Your task to perform on an android device: Search for sushi restaurants on Maps Image 0: 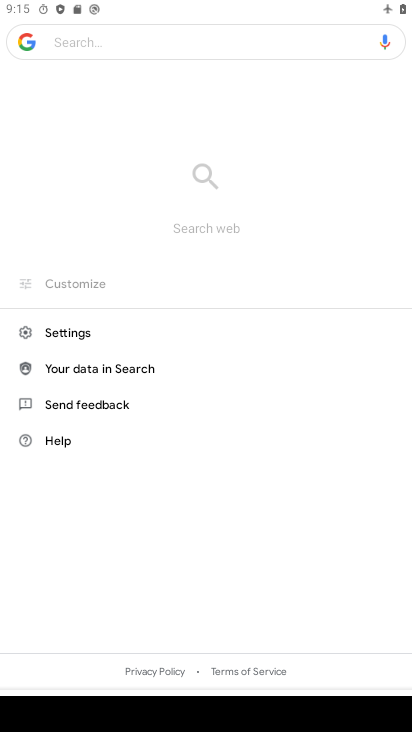
Step 0: press home button
Your task to perform on an android device: Search for sushi restaurants on Maps Image 1: 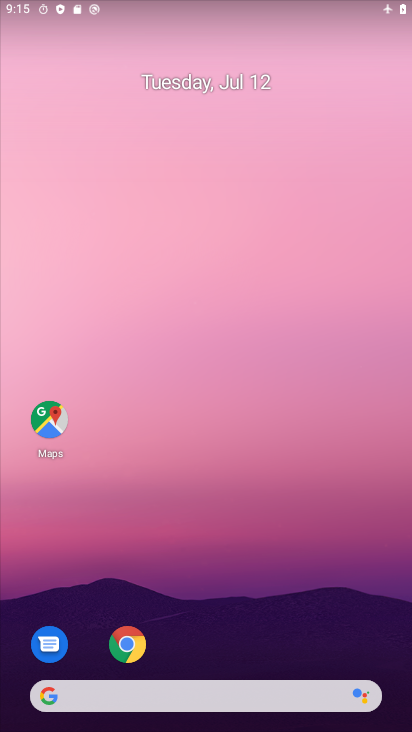
Step 1: click (32, 436)
Your task to perform on an android device: Search for sushi restaurants on Maps Image 2: 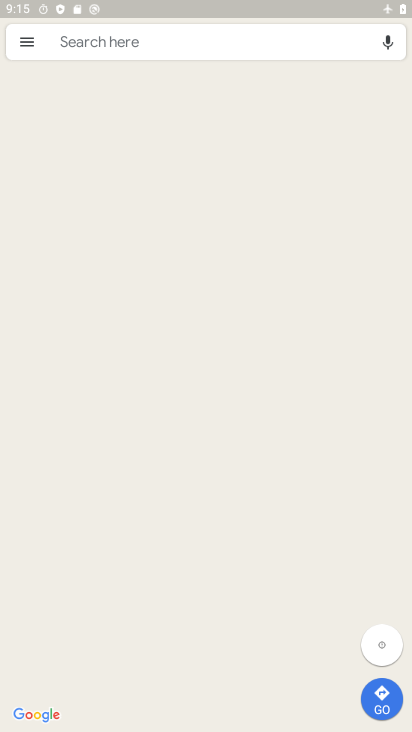
Step 2: click (141, 48)
Your task to perform on an android device: Search for sushi restaurants on Maps Image 3: 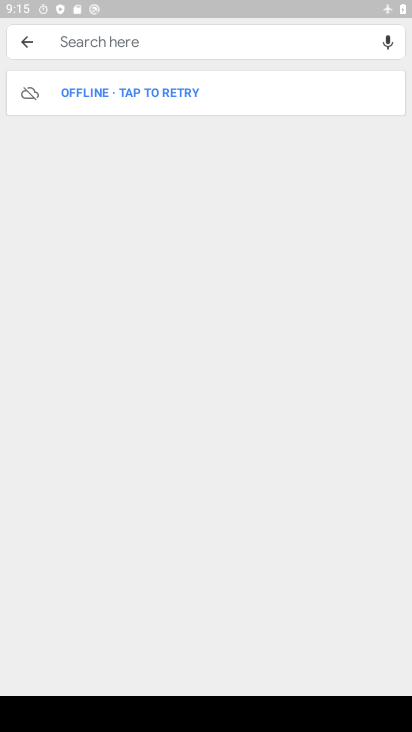
Step 3: type "sushi restaurants"
Your task to perform on an android device: Search for sushi restaurants on Maps Image 4: 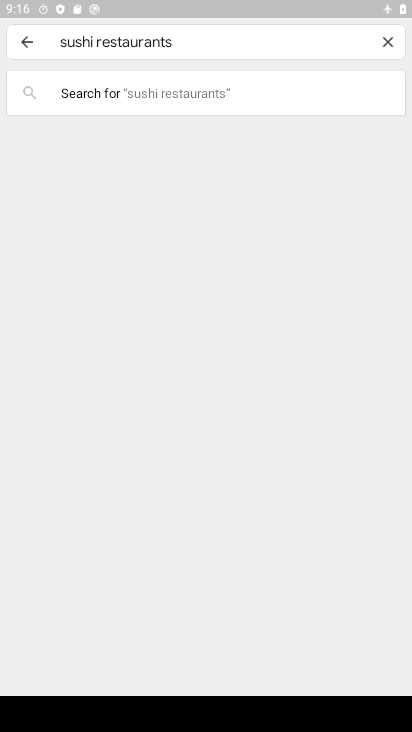
Step 4: task complete